Your task to perform on an android device: Open privacy settings Image 0: 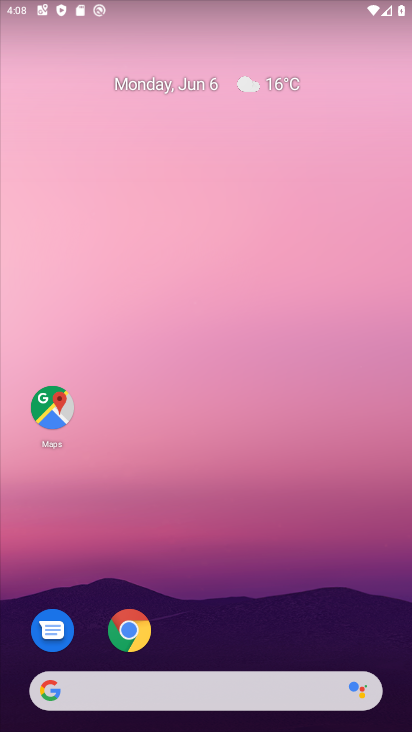
Step 0: drag from (202, 631) to (298, 132)
Your task to perform on an android device: Open privacy settings Image 1: 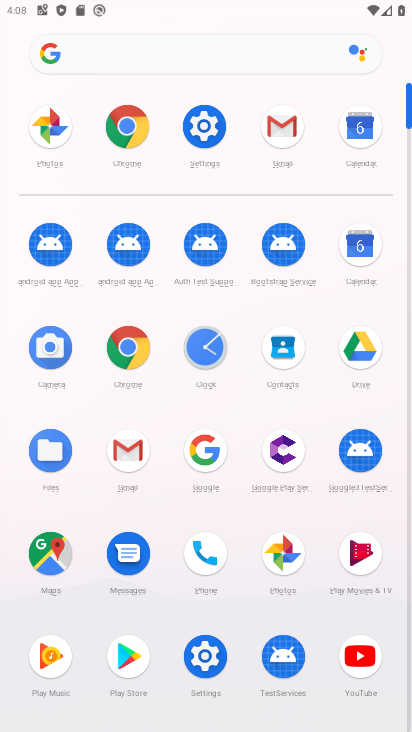
Step 1: click (215, 118)
Your task to perform on an android device: Open privacy settings Image 2: 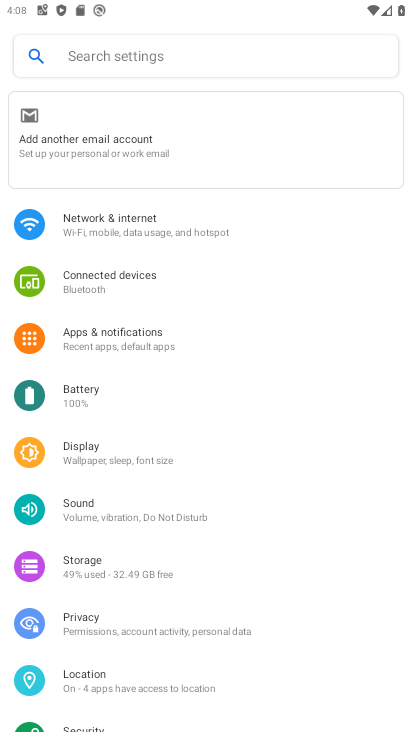
Step 2: click (94, 627)
Your task to perform on an android device: Open privacy settings Image 3: 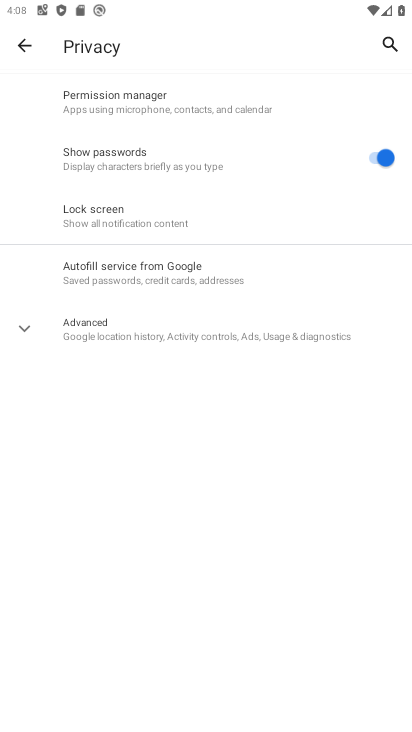
Step 3: task complete